Your task to perform on an android device: Open the Play Movies app and select the watchlist tab. Image 0: 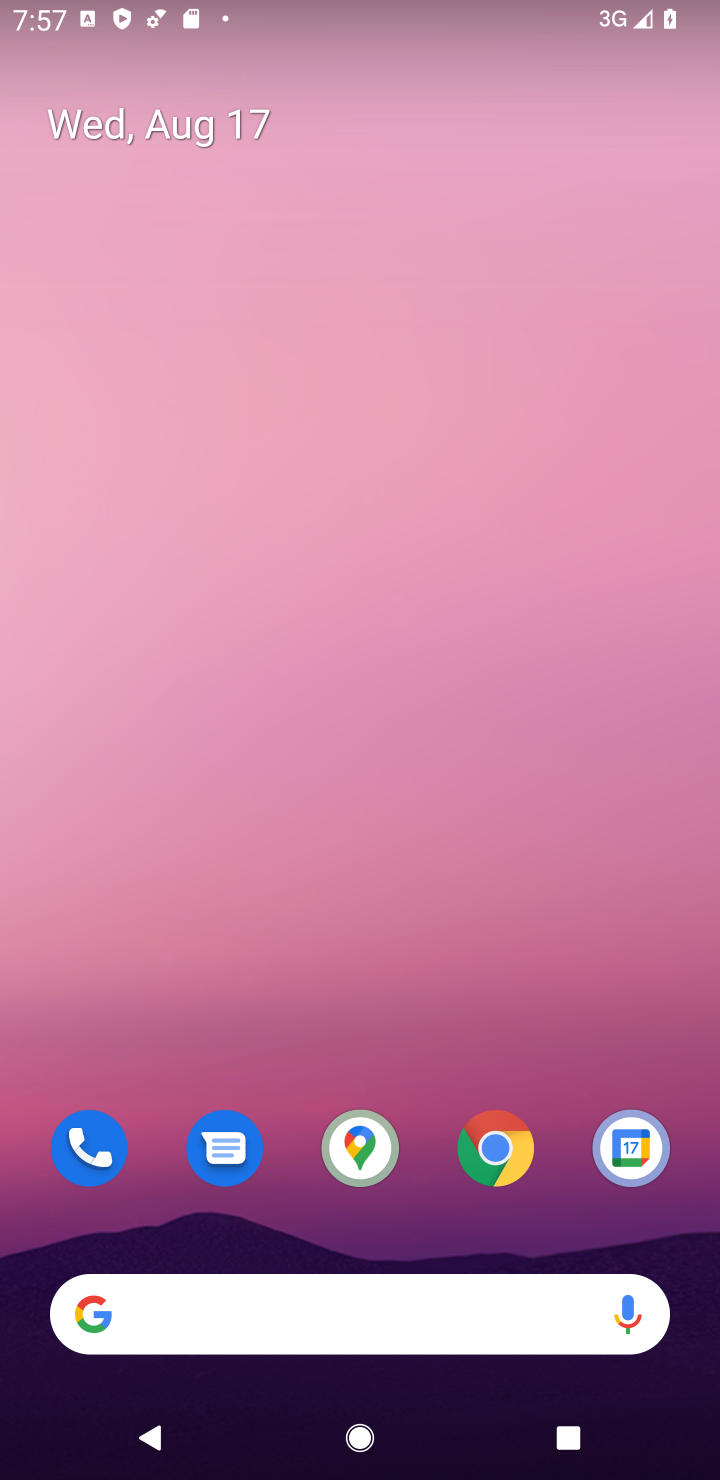
Step 0: drag from (531, 991) to (495, 196)
Your task to perform on an android device: Open the Play Movies app and select the watchlist tab. Image 1: 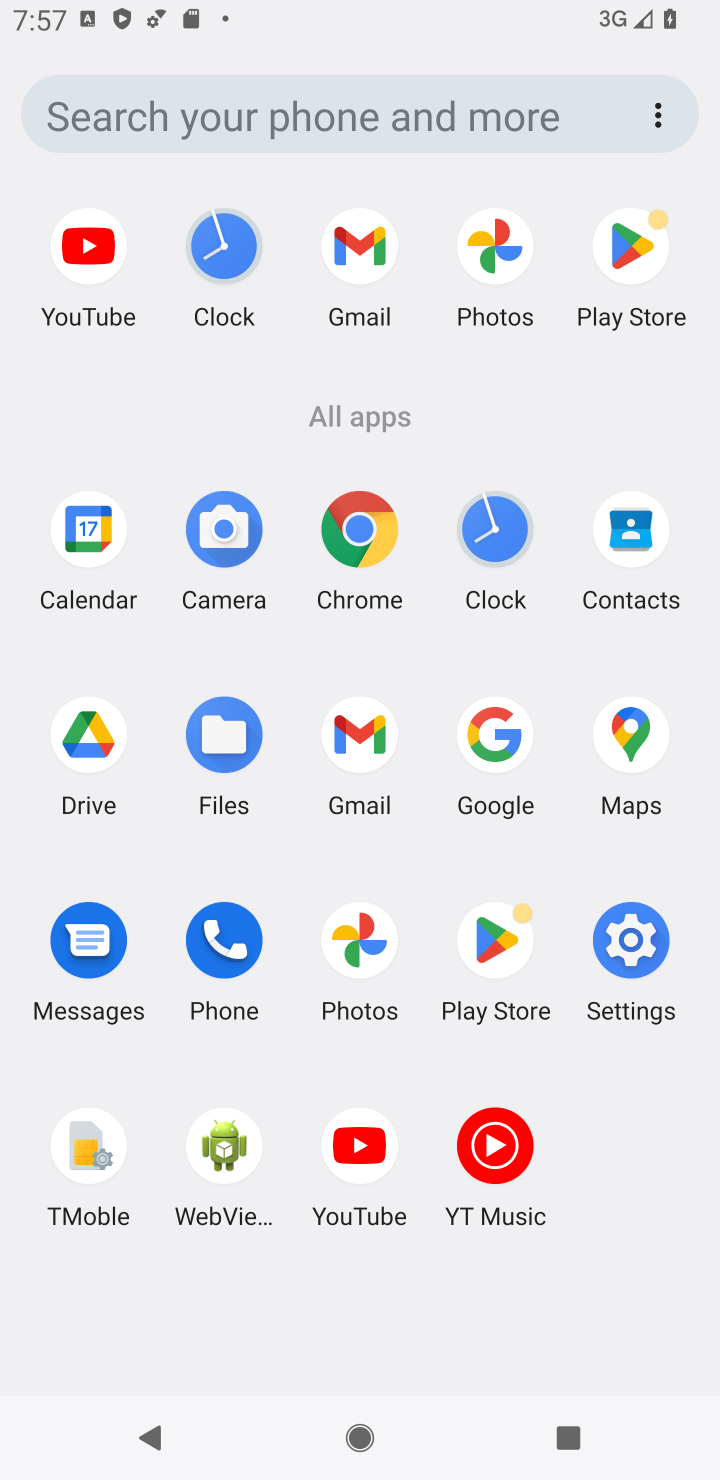
Step 1: task complete